Your task to perform on an android device: find snoozed emails in the gmail app Image 0: 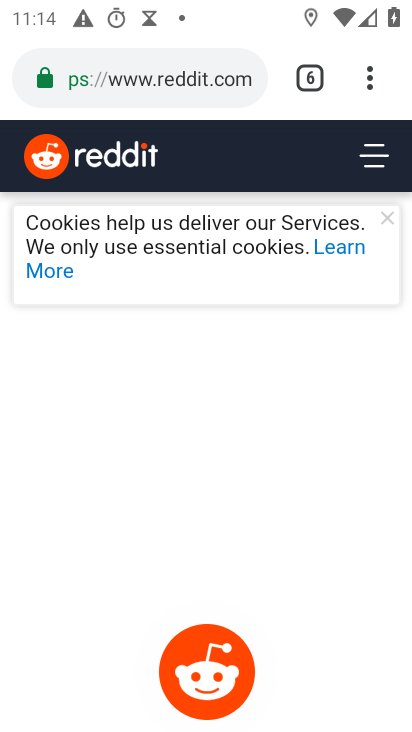
Step 0: press home button
Your task to perform on an android device: find snoozed emails in the gmail app Image 1: 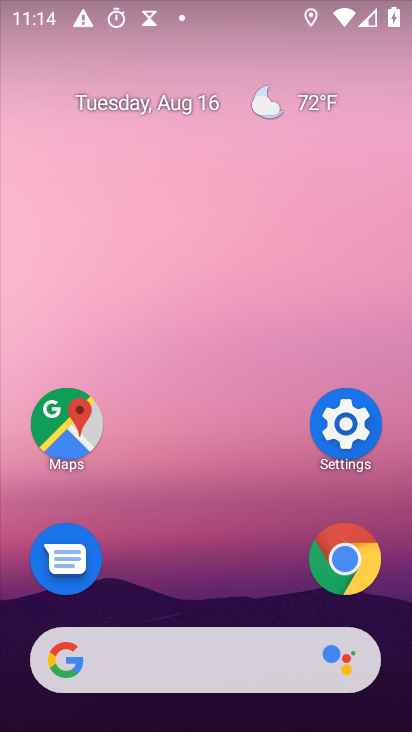
Step 1: drag from (194, 622) to (272, 71)
Your task to perform on an android device: find snoozed emails in the gmail app Image 2: 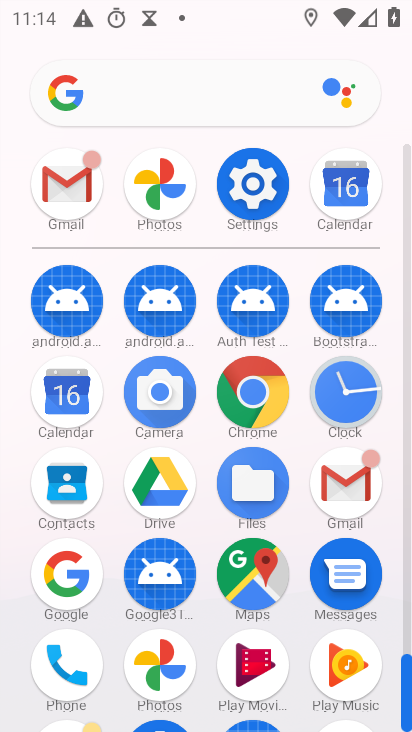
Step 2: click (53, 193)
Your task to perform on an android device: find snoozed emails in the gmail app Image 3: 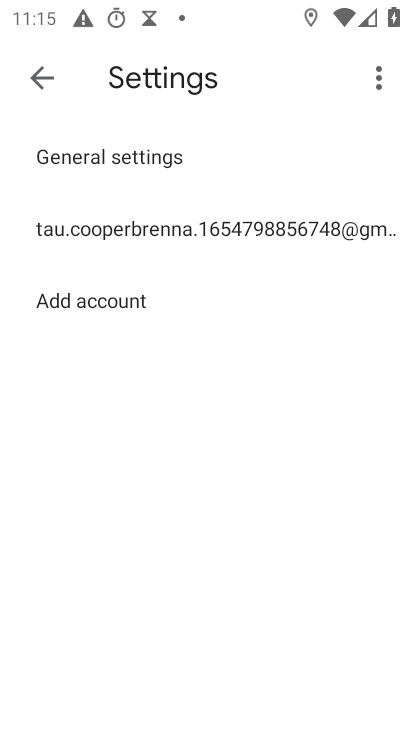
Step 3: press back button
Your task to perform on an android device: find snoozed emails in the gmail app Image 4: 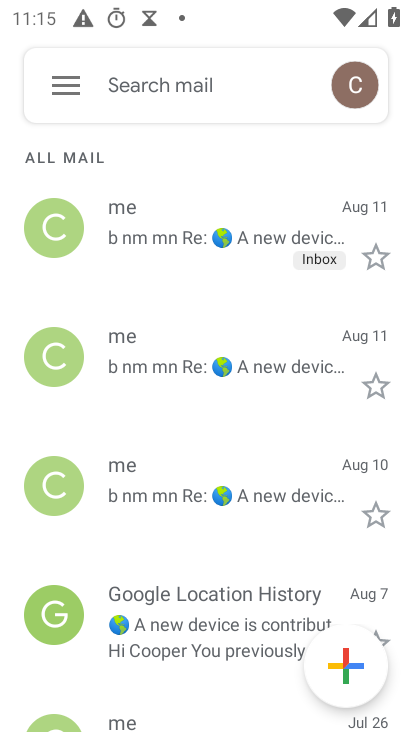
Step 4: click (72, 73)
Your task to perform on an android device: find snoozed emails in the gmail app Image 5: 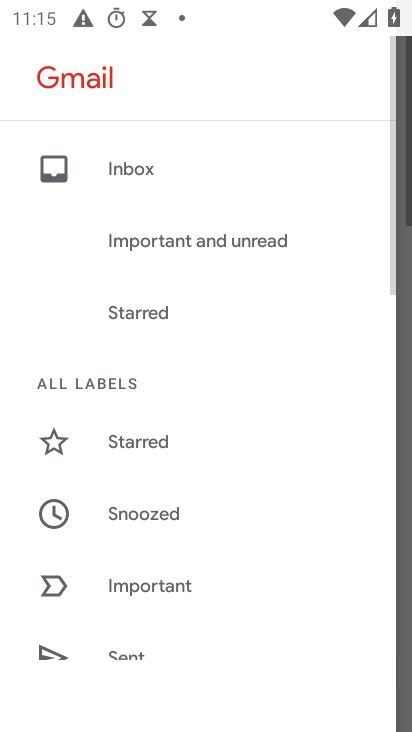
Step 5: click (131, 517)
Your task to perform on an android device: find snoozed emails in the gmail app Image 6: 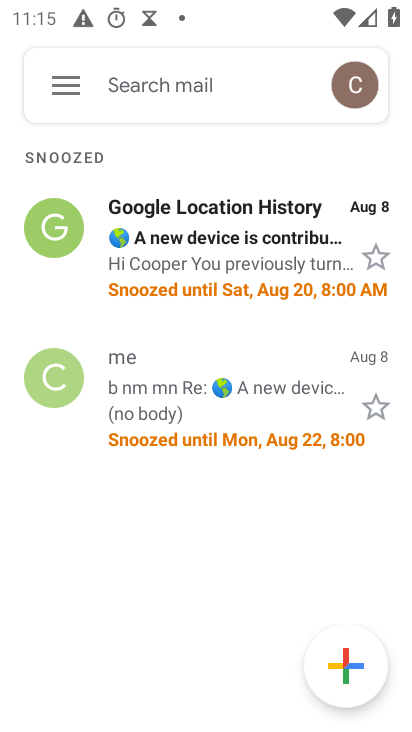
Step 6: task complete